Your task to perform on an android device: Add "asus zenbook" to the cart on walmart, then select checkout. Image 0: 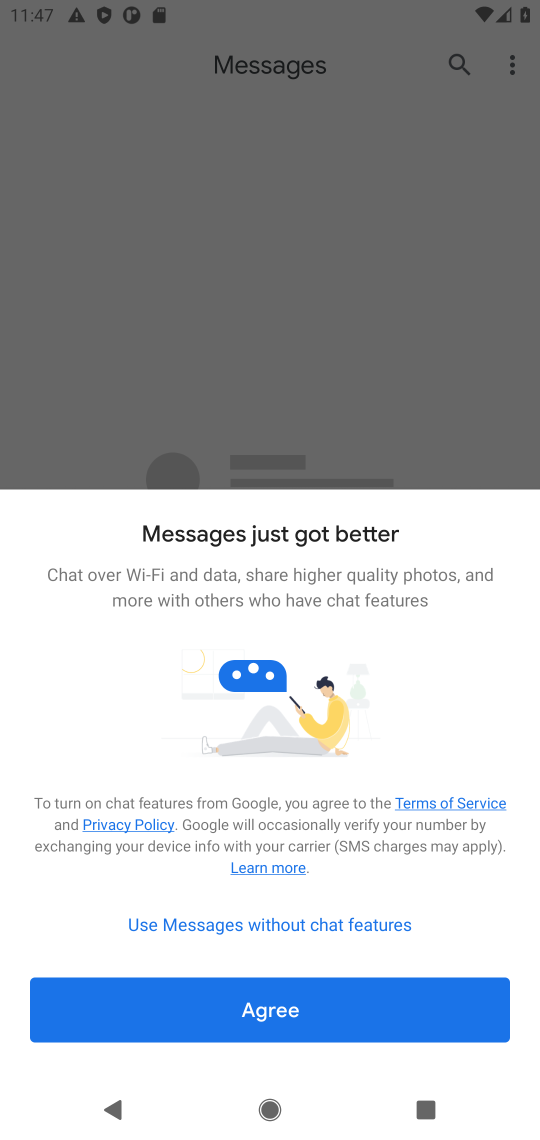
Step 0: press home button
Your task to perform on an android device: Add "asus zenbook" to the cart on walmart, then select checkout. Image 1: 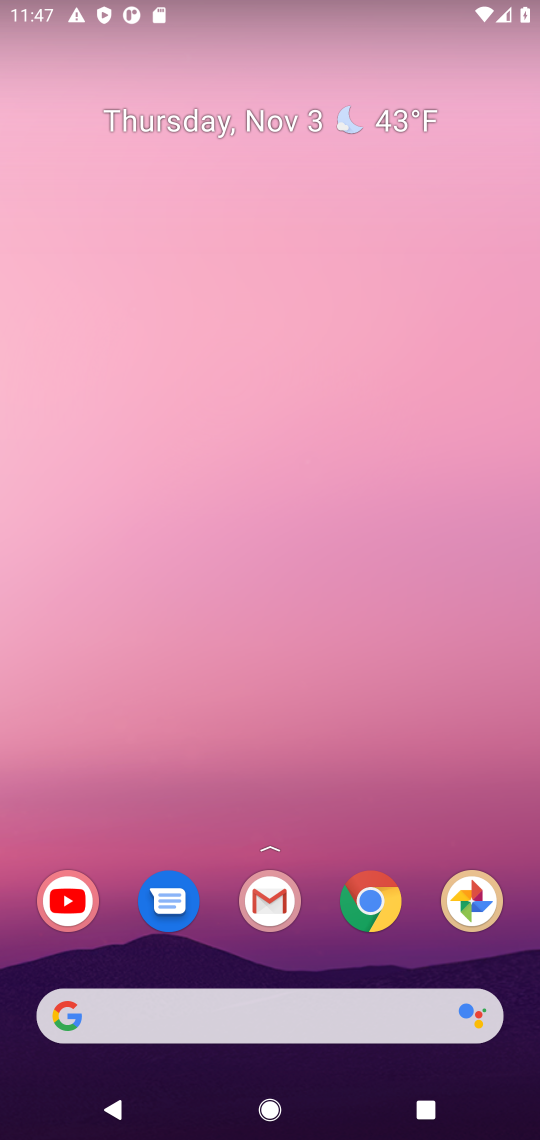
Step 1: click (373, 907)
Your task to perform on an android device: Add "asus zenbook" to the cart on walmart, then select checkout. Image 2: 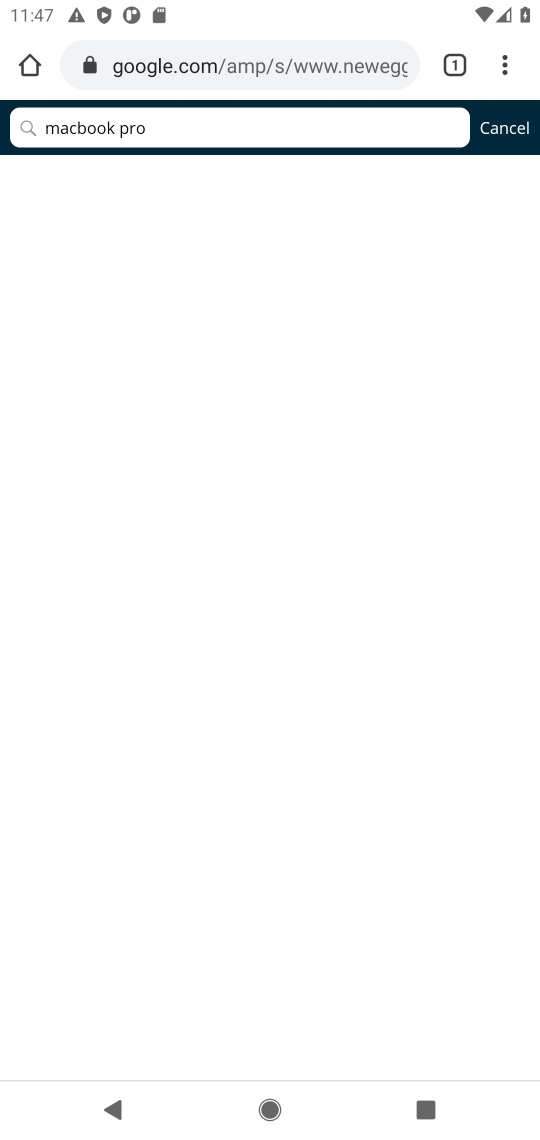
Step 2: click (28, 57)
Your task to perform on an android device: Add "asus zenbook" to the cart on walmart, then select checkout. Image 3: 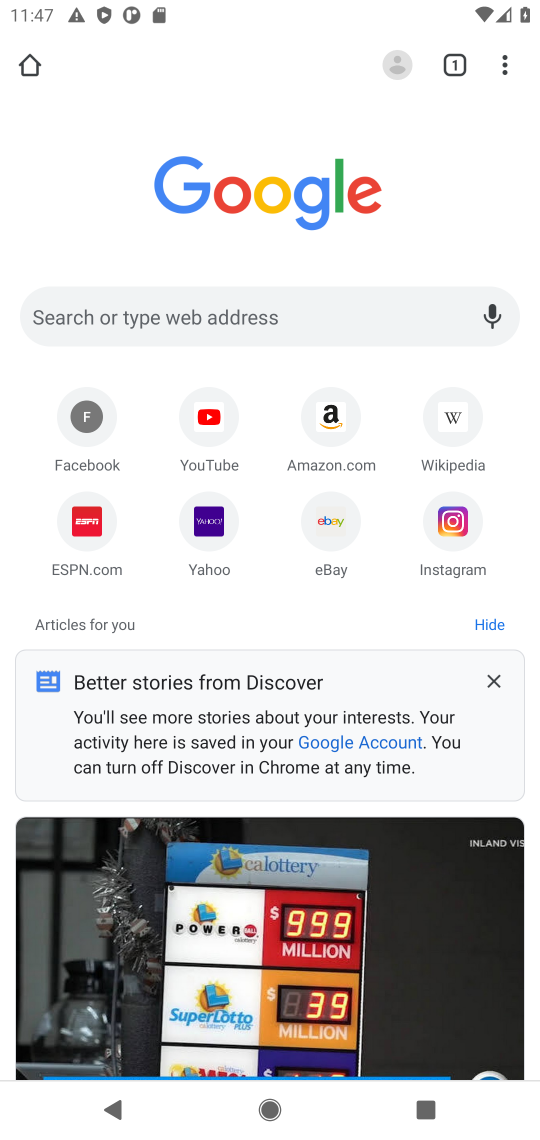
Step 3: click (326, 307)
Your task to perform on an android device: Add "asus zenbook" to the cart on walmart, then select checkout. Image 4: 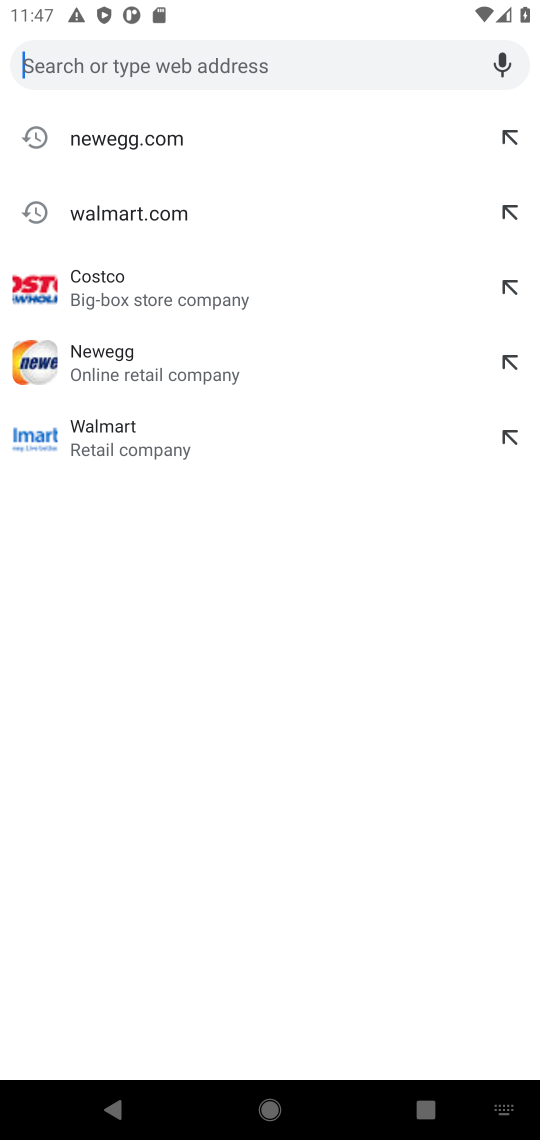
Step 4: click (135, 204)
Your task to perform on an android device: Add "asus zenbook" to the cart on walmart, then select checkout. Image 5: 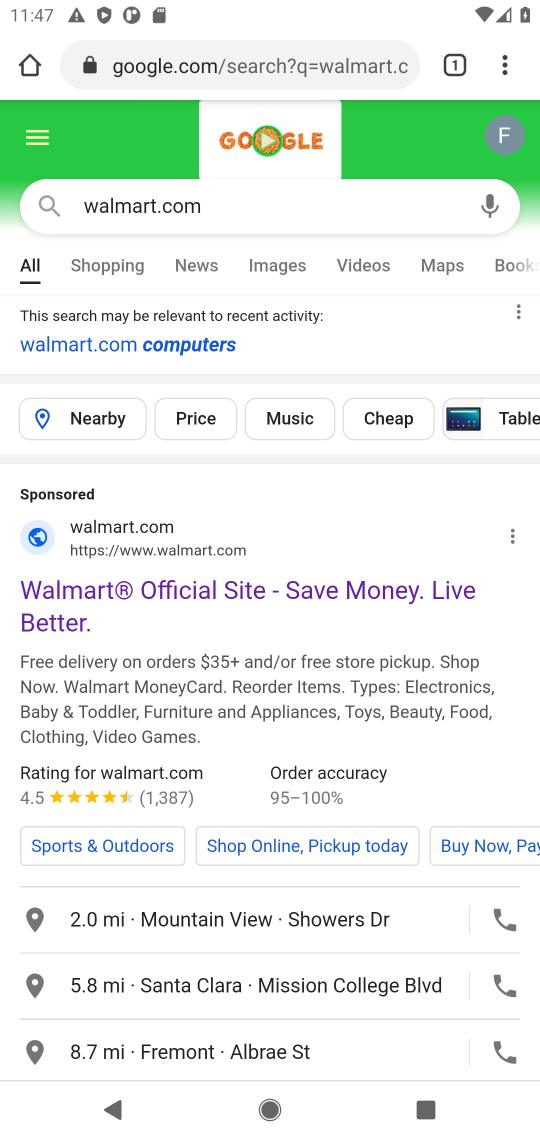
Step 5: click (193, 553)
Your task to perform on an android device: Add "asus zenbook" to the cart on walmart, then select checkout. Image 6: 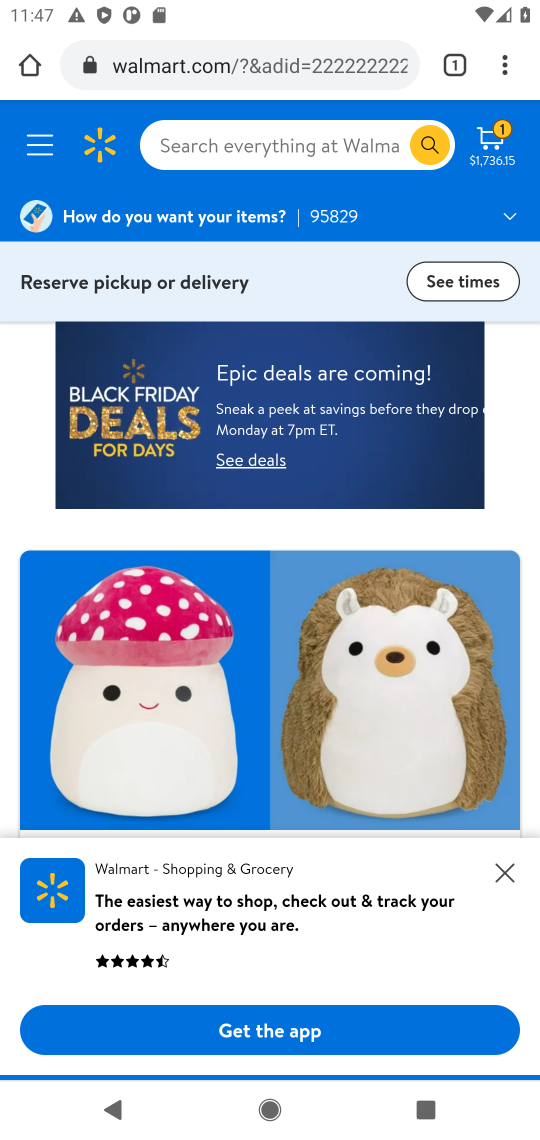
Step 6: click (248, 149)
Your task to perform on an android device: Add "asus zenbook" to the cart on walmart, then select checkout. Image 7: 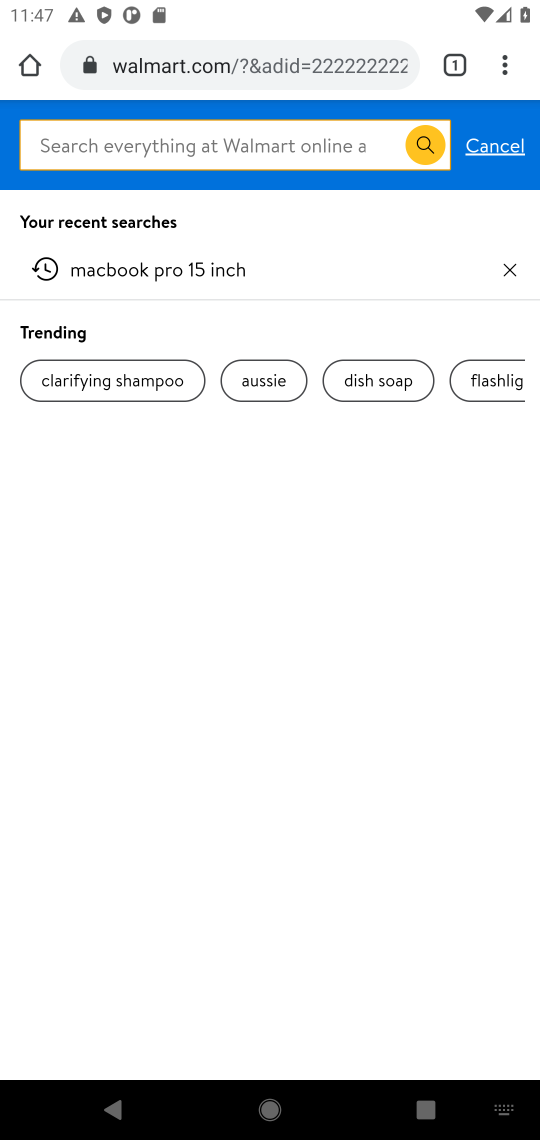
Step 7: type "asus zenbook"
Your task to perform on an android device: Add "asus zenbook" to the cart on walmart, then select checkout. Image 8: 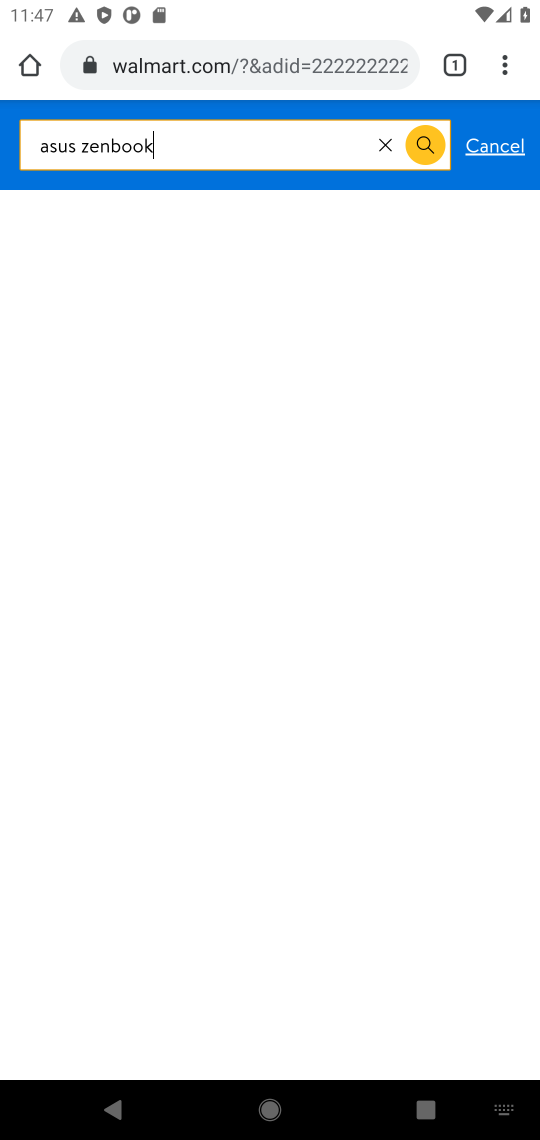
Step 8: press enter
Your task to perform on an android device: Add "asus zenbook" to the cart on walmart, then select checkout. Image 9: 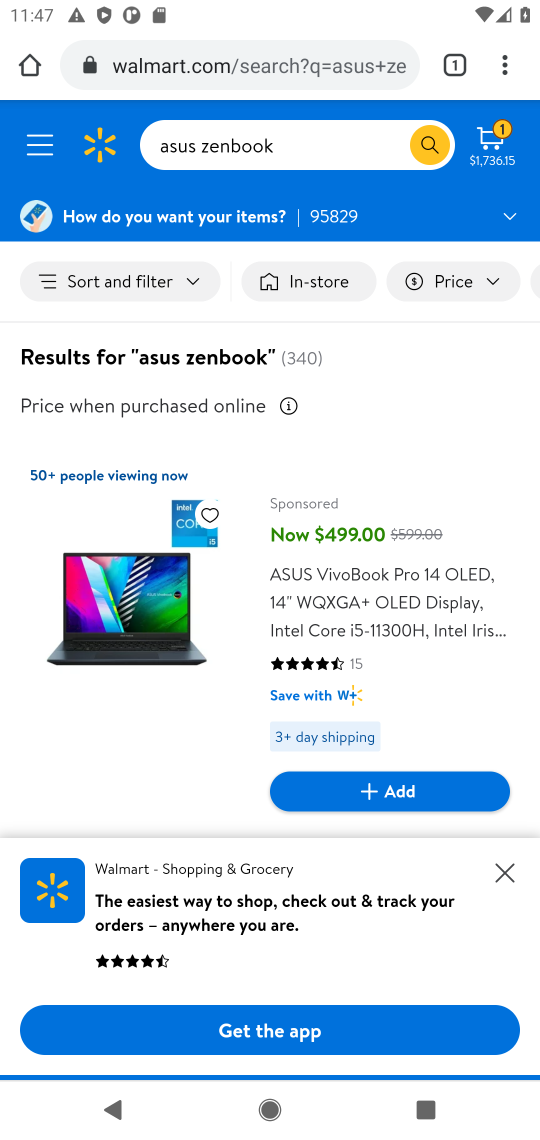
Step 9: click (504, 869)
Your task to perform on an android device: Add "asus zenbook" to the cart on walmart, then select checkout. Image 10: 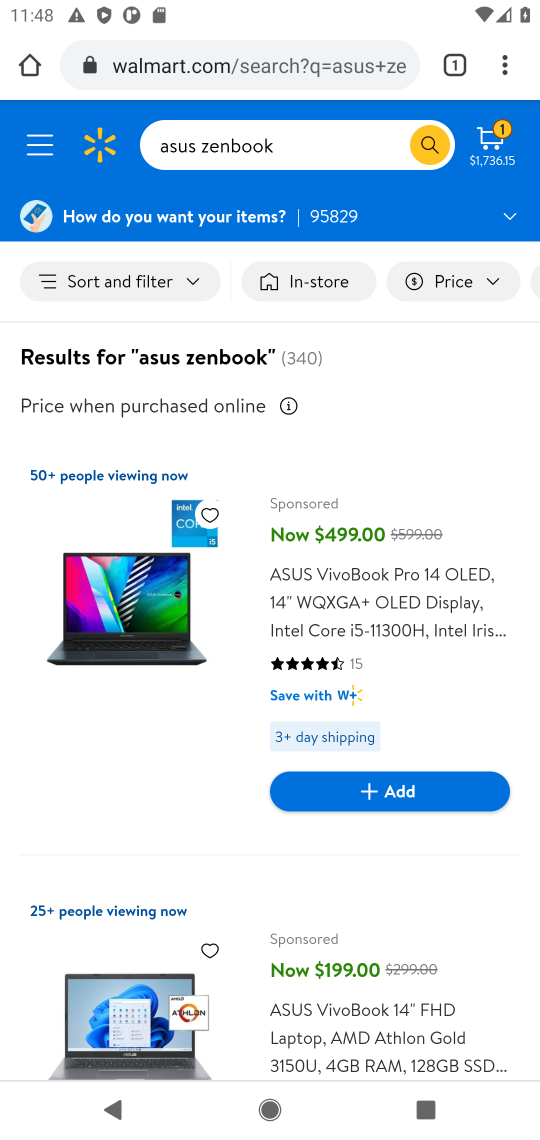
Step 10: drag from (173, 837) to (178, 366)
Your task to perform on an android device: Add "asus zenbook" to the cart on walmart, then select checkout. Image 11: 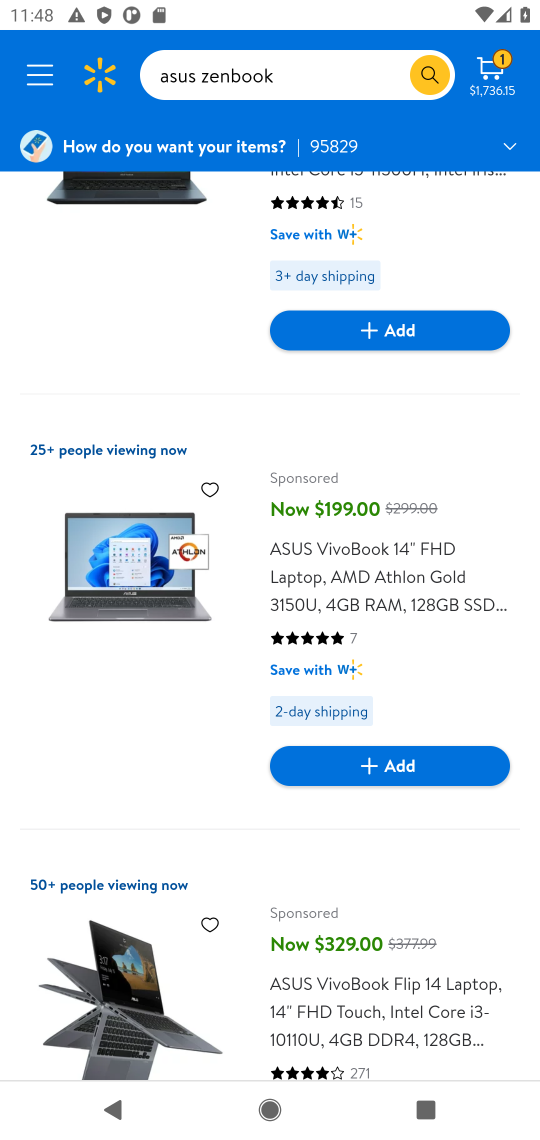
Step 11: drag from (151, 973) to (172, 442)
Your task to perform on an android device: Add "asus zenbook" to the cart on walmart, then select checkout. Image 12: 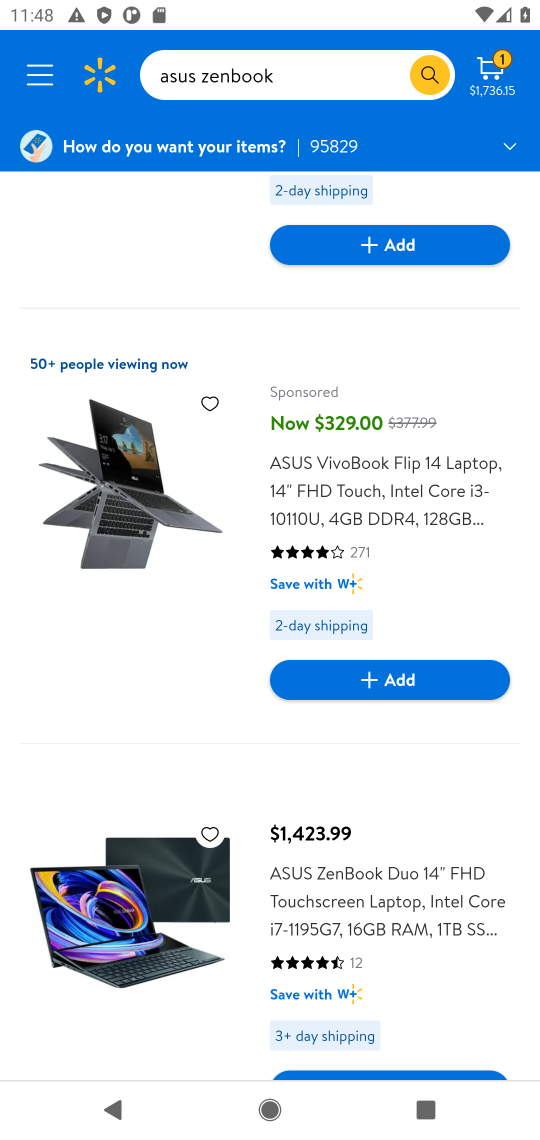
Step 12: click (108, 932)
Your task to perform on an android device: Add "asus zenbook" to the cart on walmart, then select checkout. Image 13: 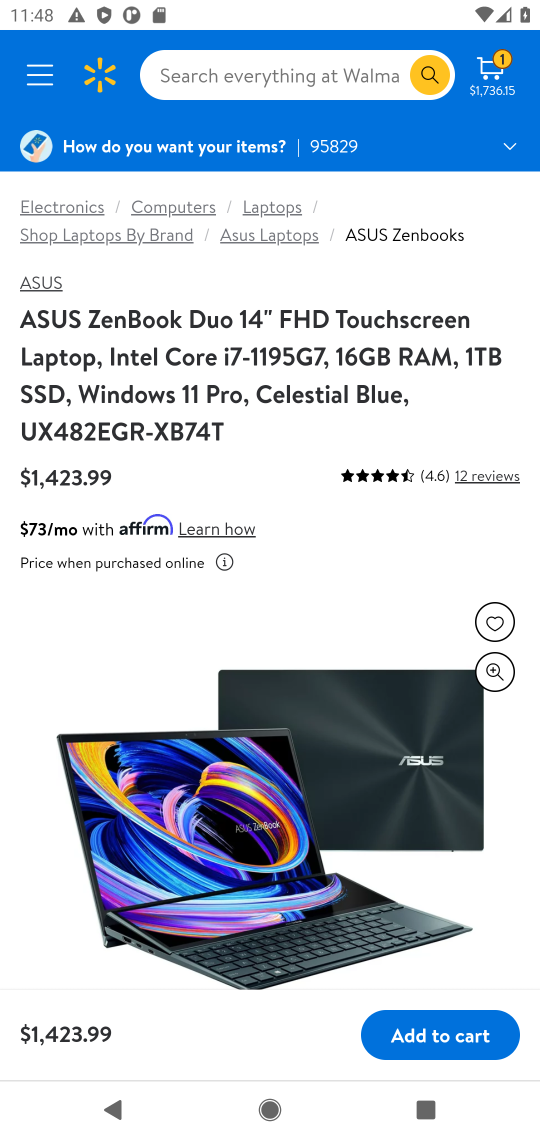
Step 13: click (456, 1035)
Your task to perform on an android device: Add "asus zenbook" to the cart on walmart, then select checkout. Image 14: 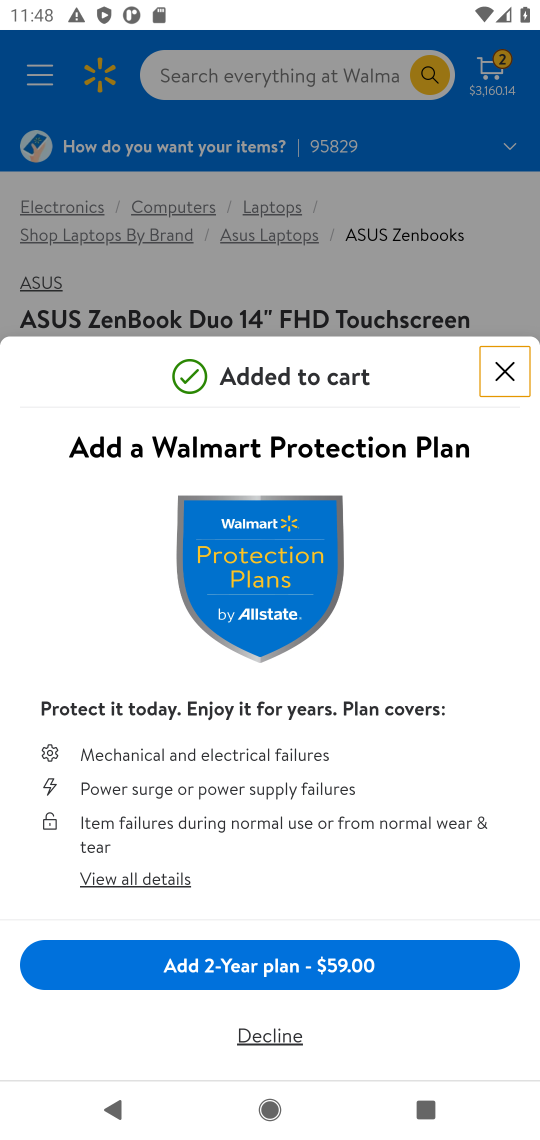
Step 14: click (495, 371)
Your task to perform on an android device: Add "asus zenbook" to the cart on walmart, then select checkout. Image 15: 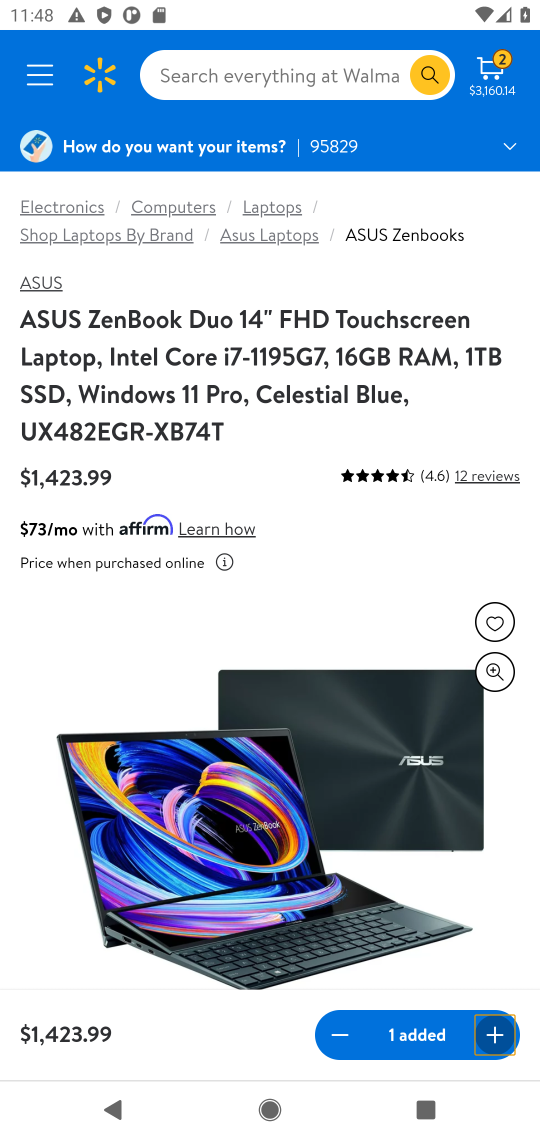
Step 15: click (503, 74)
Your task to perform on an android device: Add "asus zenbook" to the cart on walmart, then select checkout. Image 16: 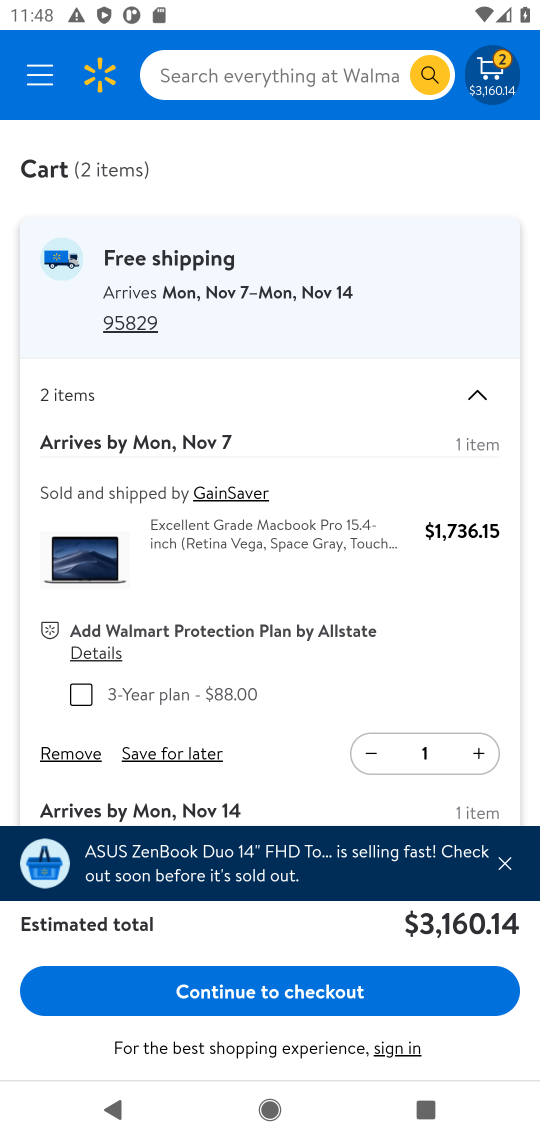
Step 16: click (331, 991)
Your task to perform on an android device: Add "asus zenbook" to the cart on walmart, then select checkout. Image 17: 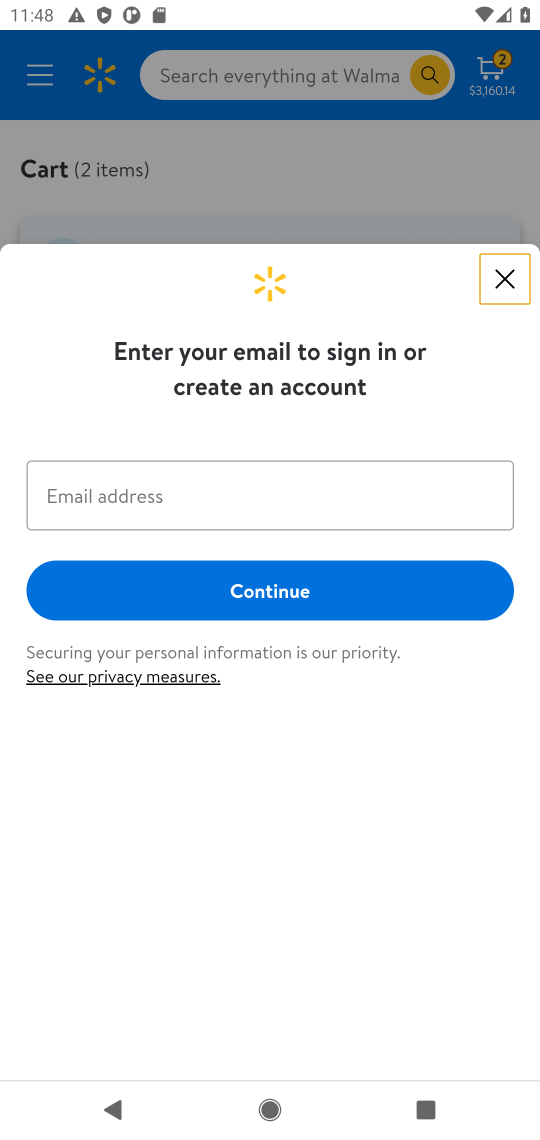
Step 17: task complete